Your task to perform on an android device: Go to display settings Image 0: 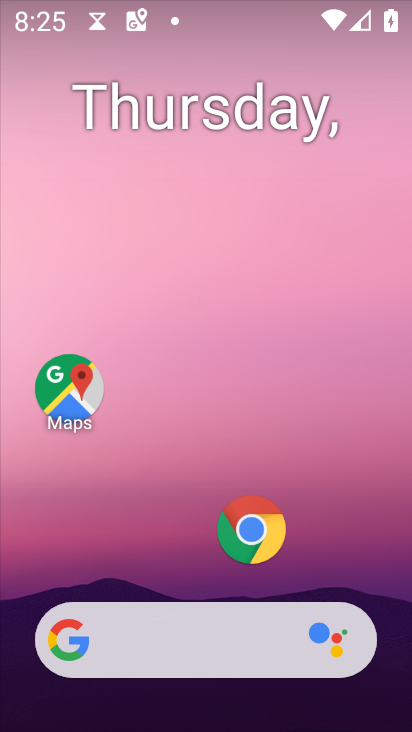
Step 0: press home button
Your task to perform on an android device: Go to display settings Image 1: 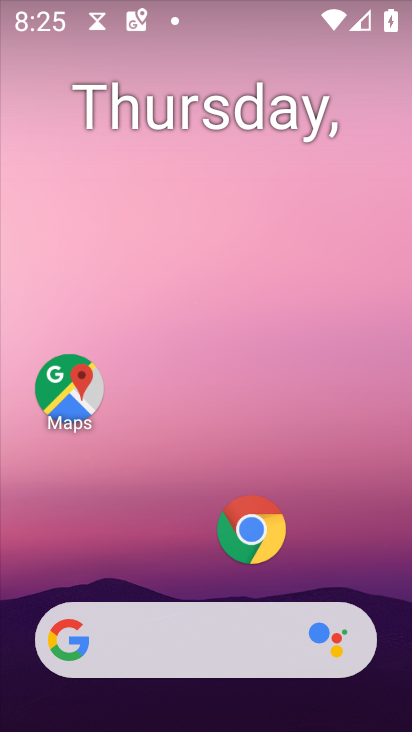
Step 1: drag from (199, 563) to (234, 59)
Your task to perform on an android device: Go to display settings Image 2: 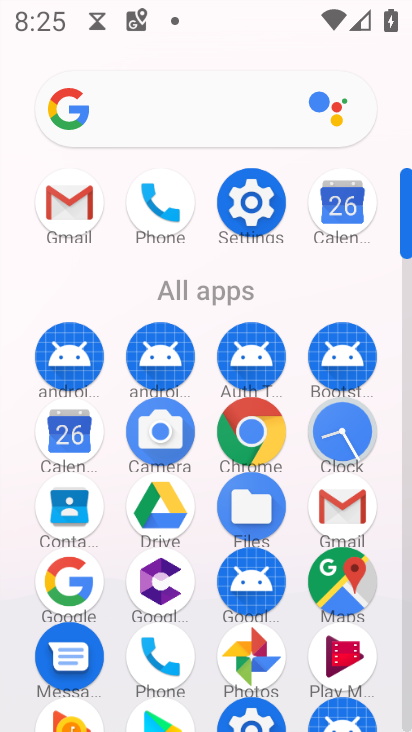
Step 2: click (244, 195)
Your task to perform on an android device: Go to display settings Image 3: 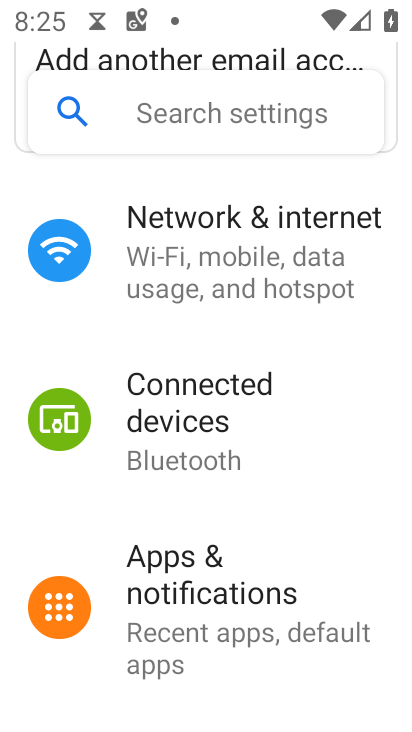
Step 3: drag from (210, 589) to (205, 114)
Your task to perform on an android device: Go to display settings Image 4: 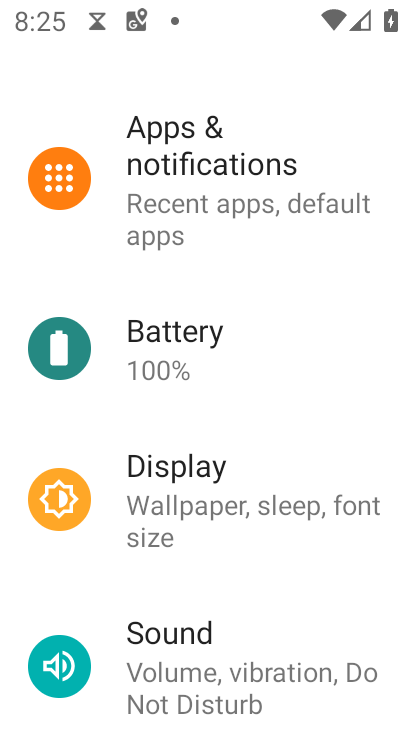
Step 4: click (199, 490)
Your task to perform on an android device: Go to display settings Image 5: 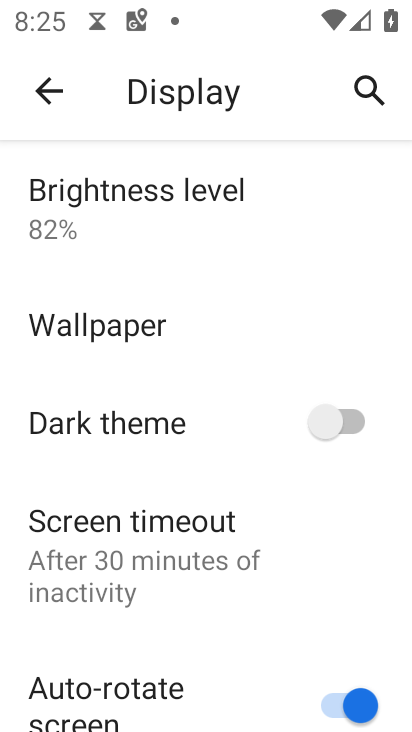
Step 5: drag from (190, 609) to (166, 196)
Your task to perform on an android device: Go to display settings Image 6: 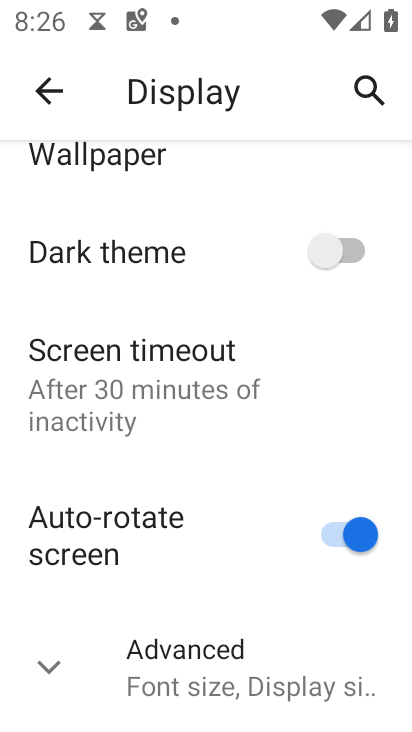
Step 6: click (50, 655)
Your task to perform on an android device: Go to display settings Image 7: 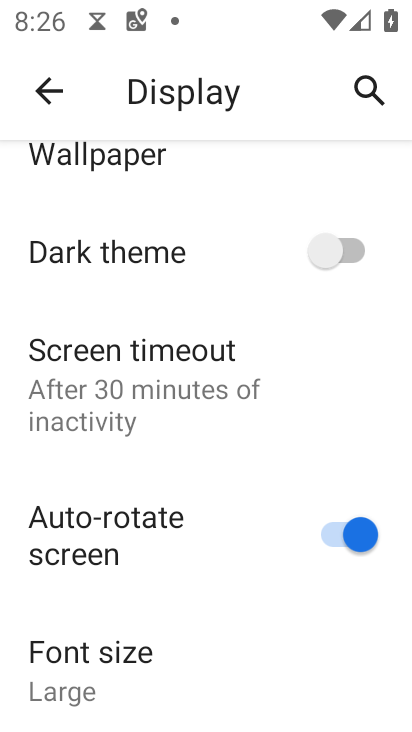
Step 7: task complete